Your task to perform on an android device: View the shopping cart on amazon. Image 0: 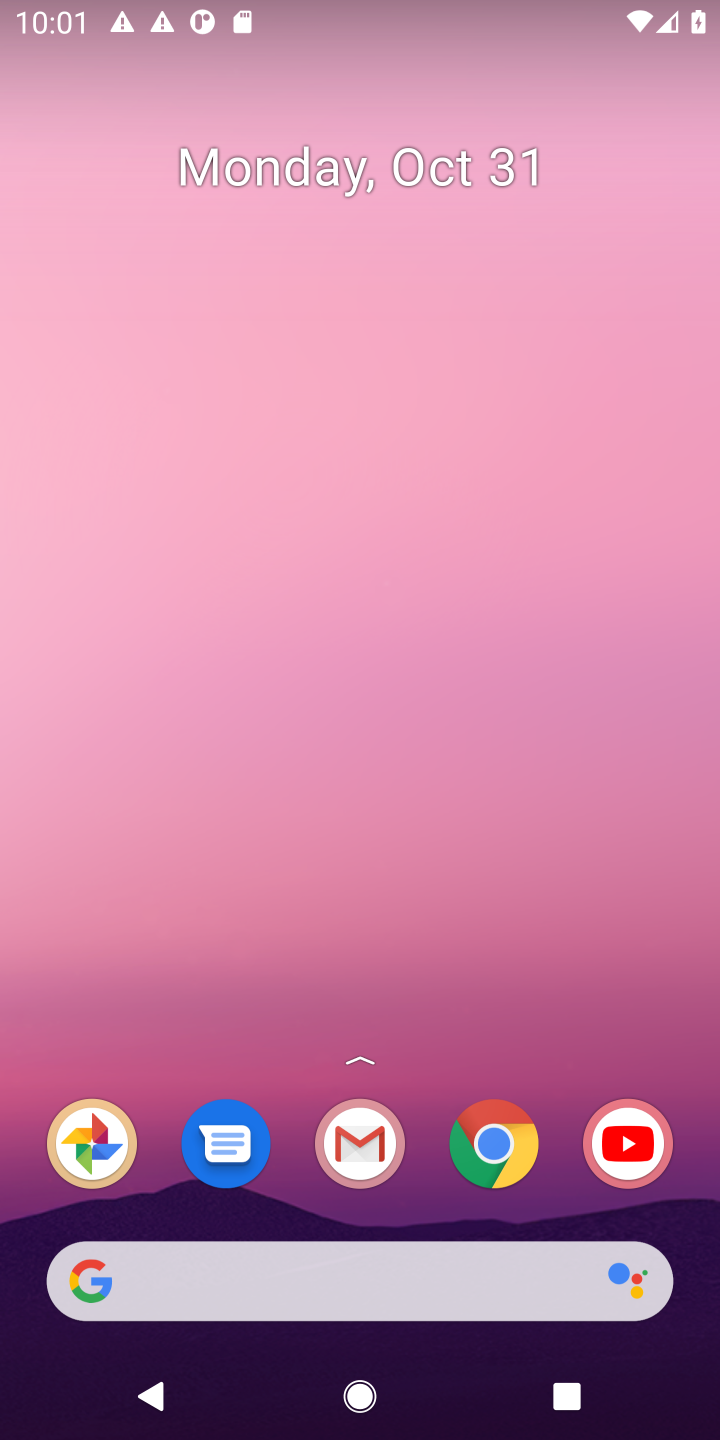
Step 0: press home button
Your task to perform on an android device: View the shopping cart on amazon. Image 1: 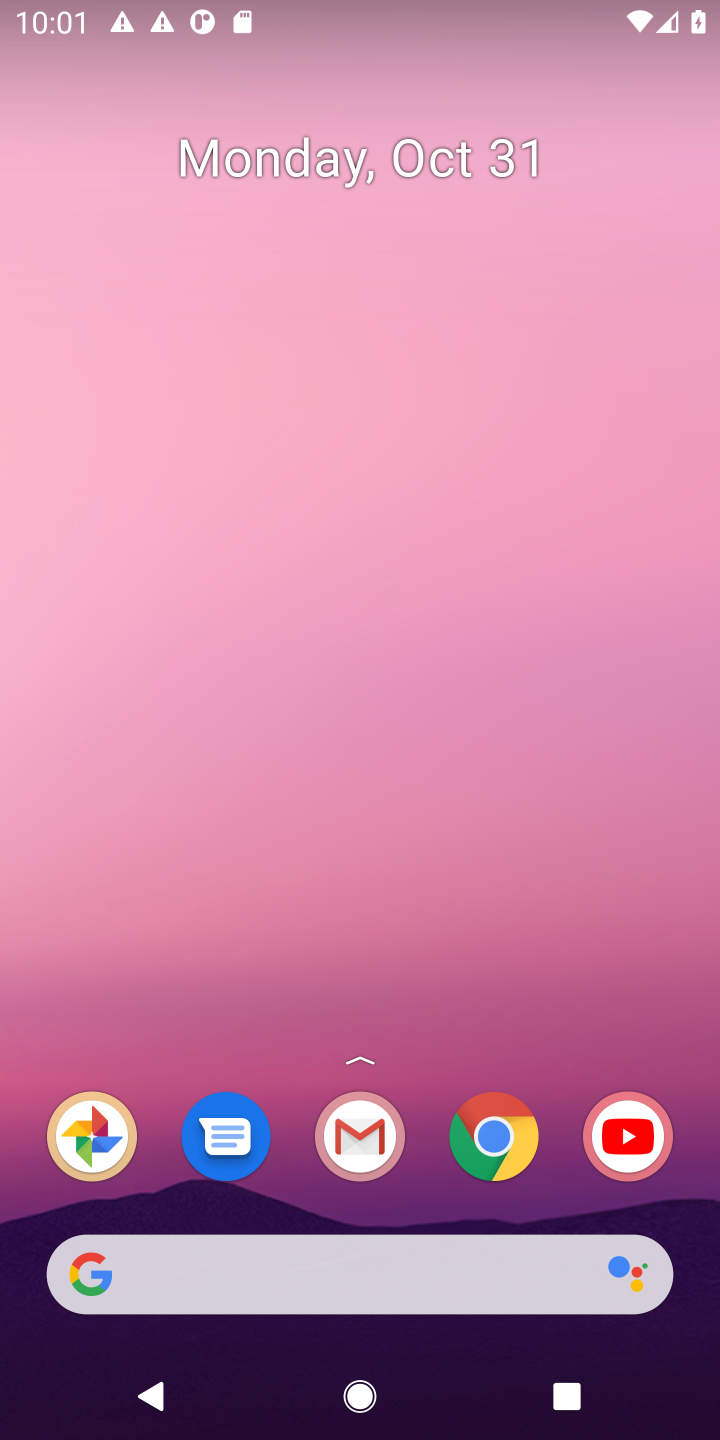
Step 1: click (156, 1276)
Your task to perform on an android device: View the shopping cart on amazon. Image 2: 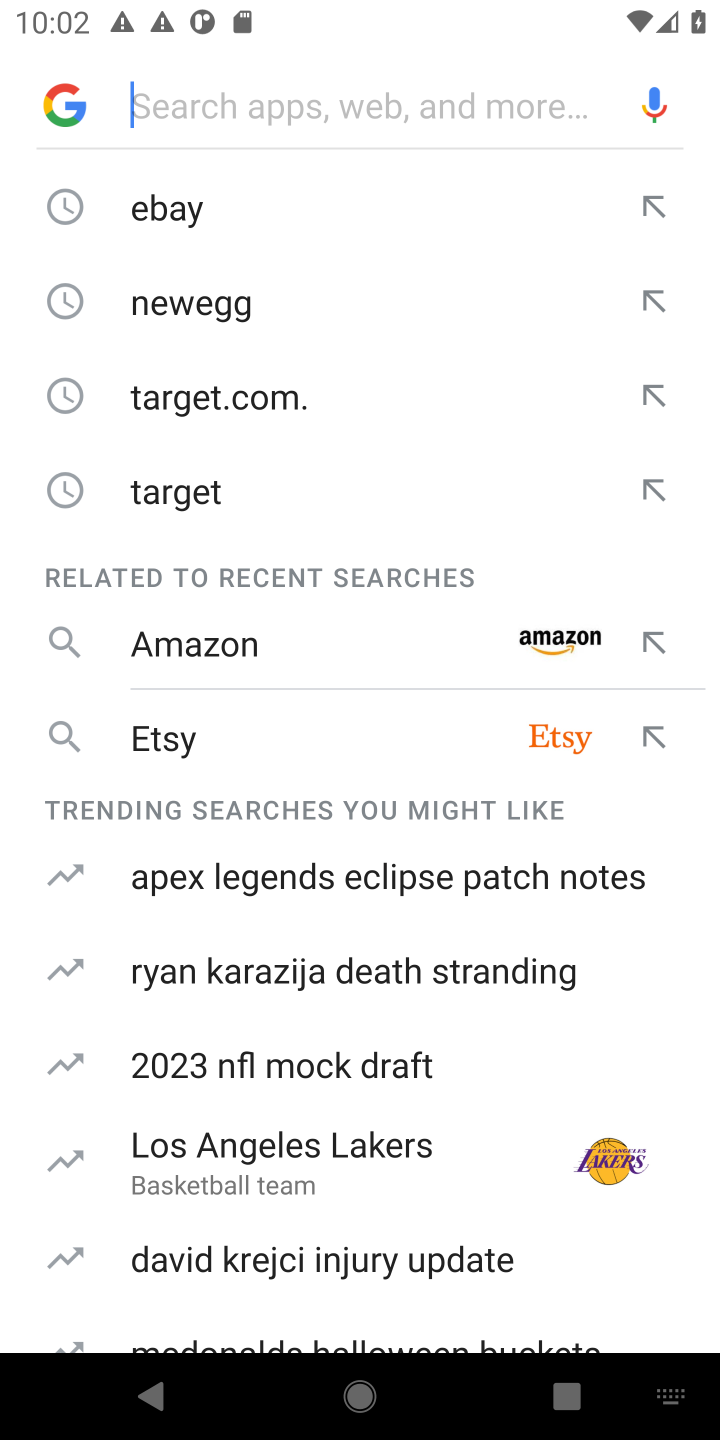
Step 2: type "amazon"
Your task to perform on an android device: View the shopping cart on amazon. Image 3: 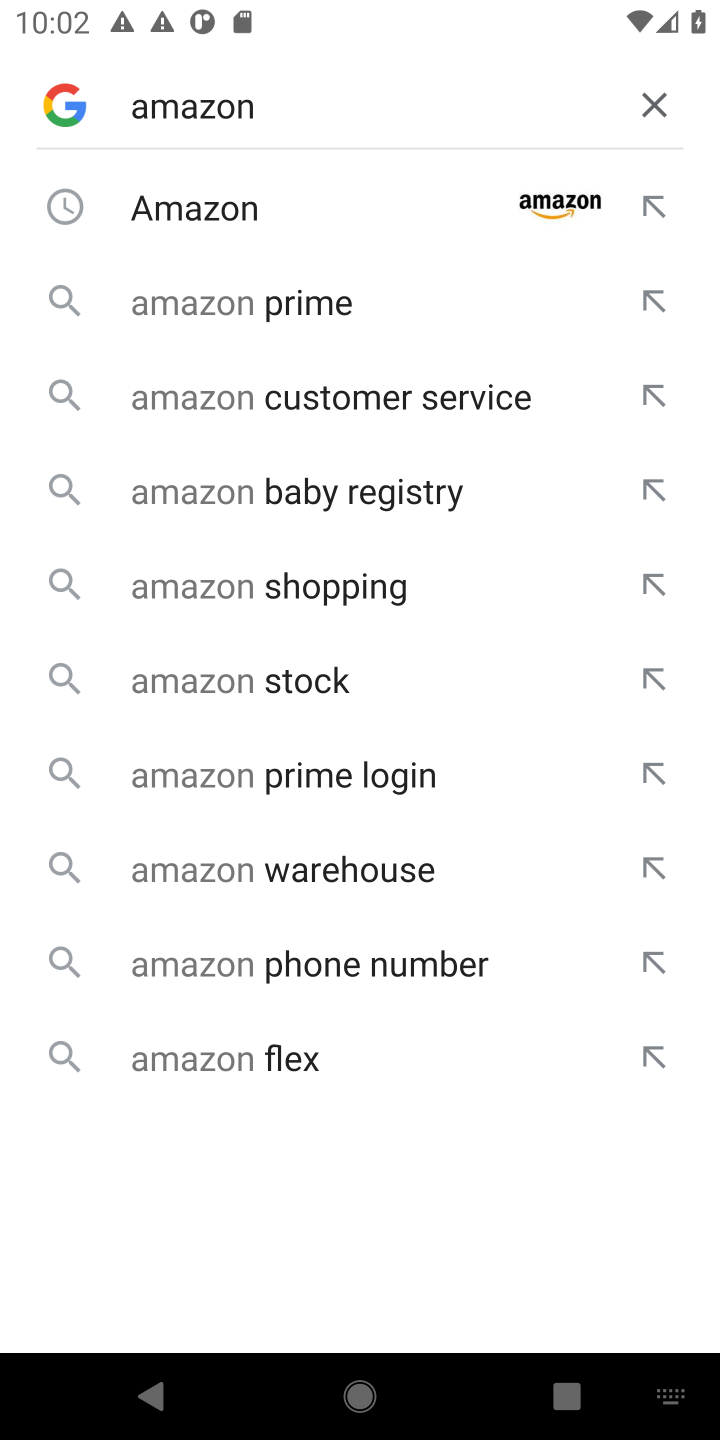
Step 3: press enter
Your task to perform on an android device: View the shopping cart on amazon. Image 4: 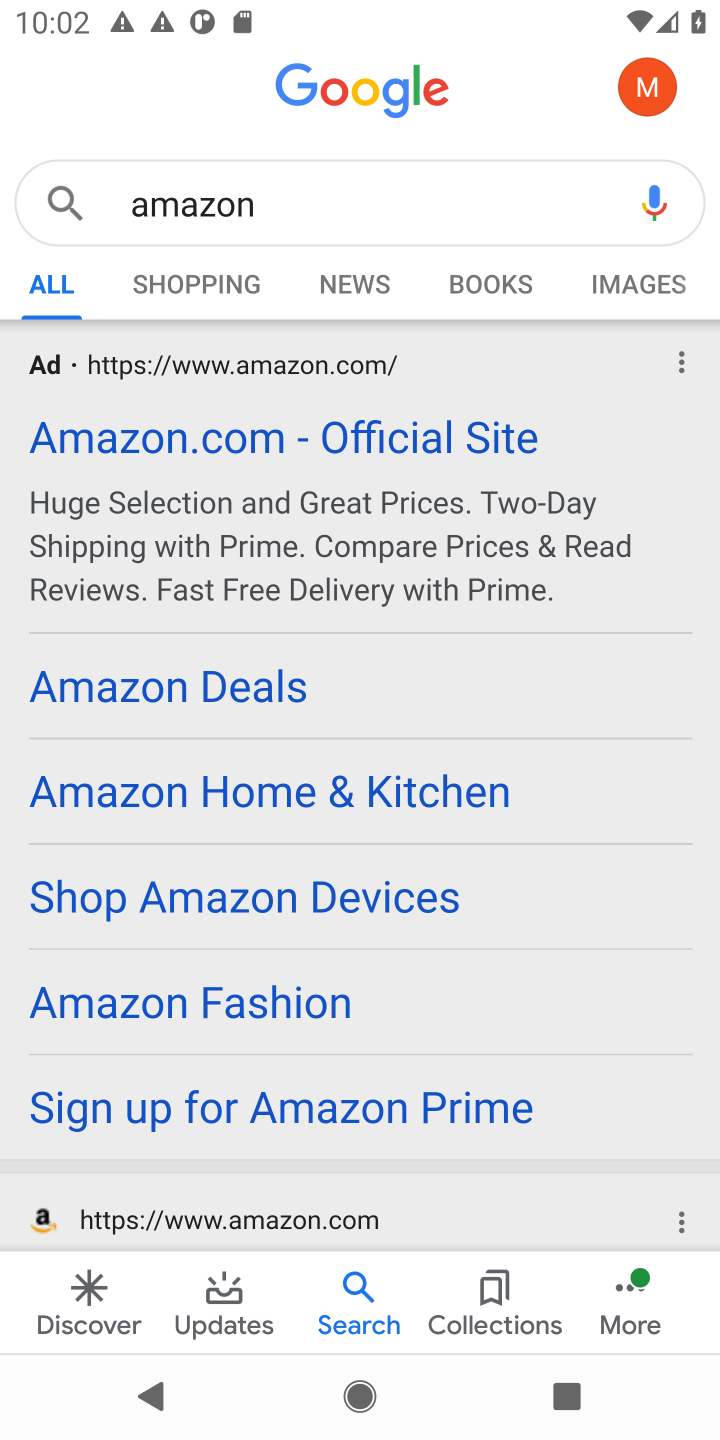
Step 4: click (427, 431)
Your task to perform on an android device: View the shopping cart on amazon. Image 5: 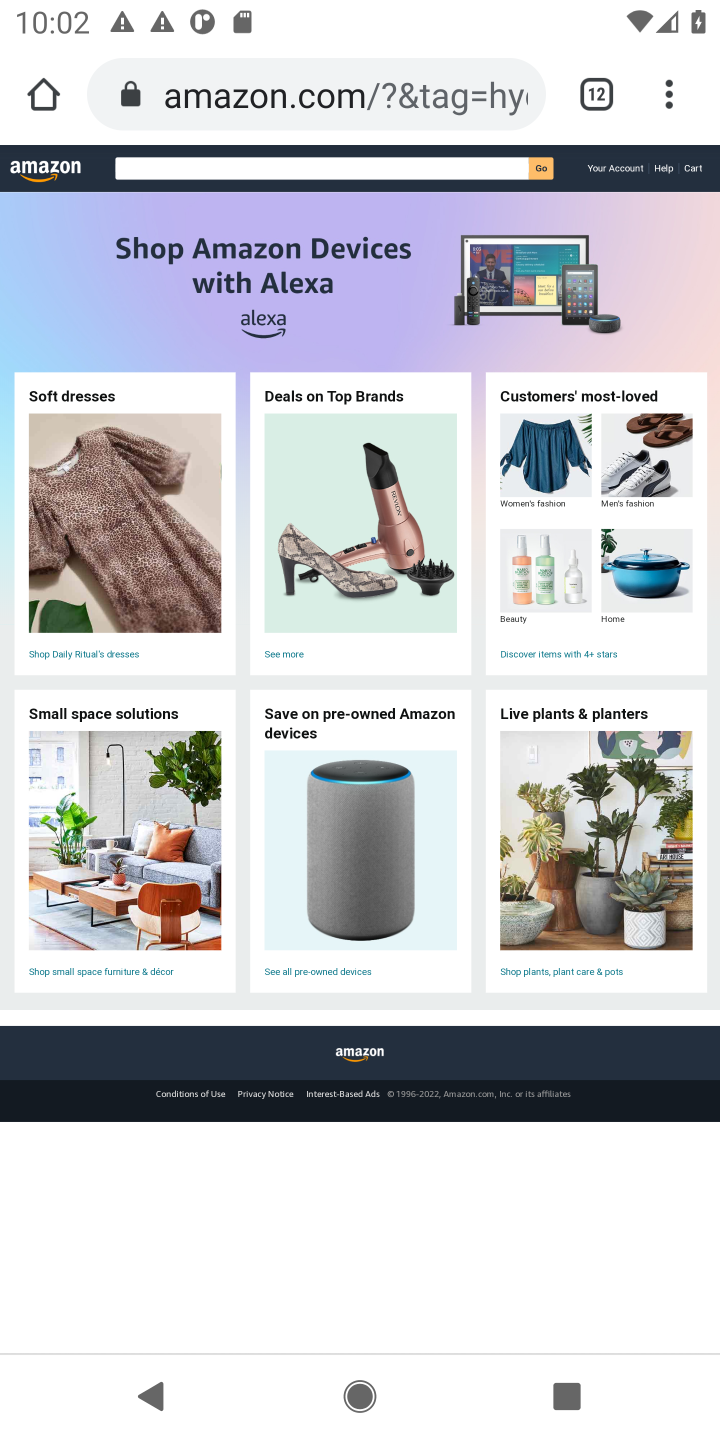
Step 5: click (287, 167)
Your task to perform on an android device: View the shopping cart on amazon. Image 6: 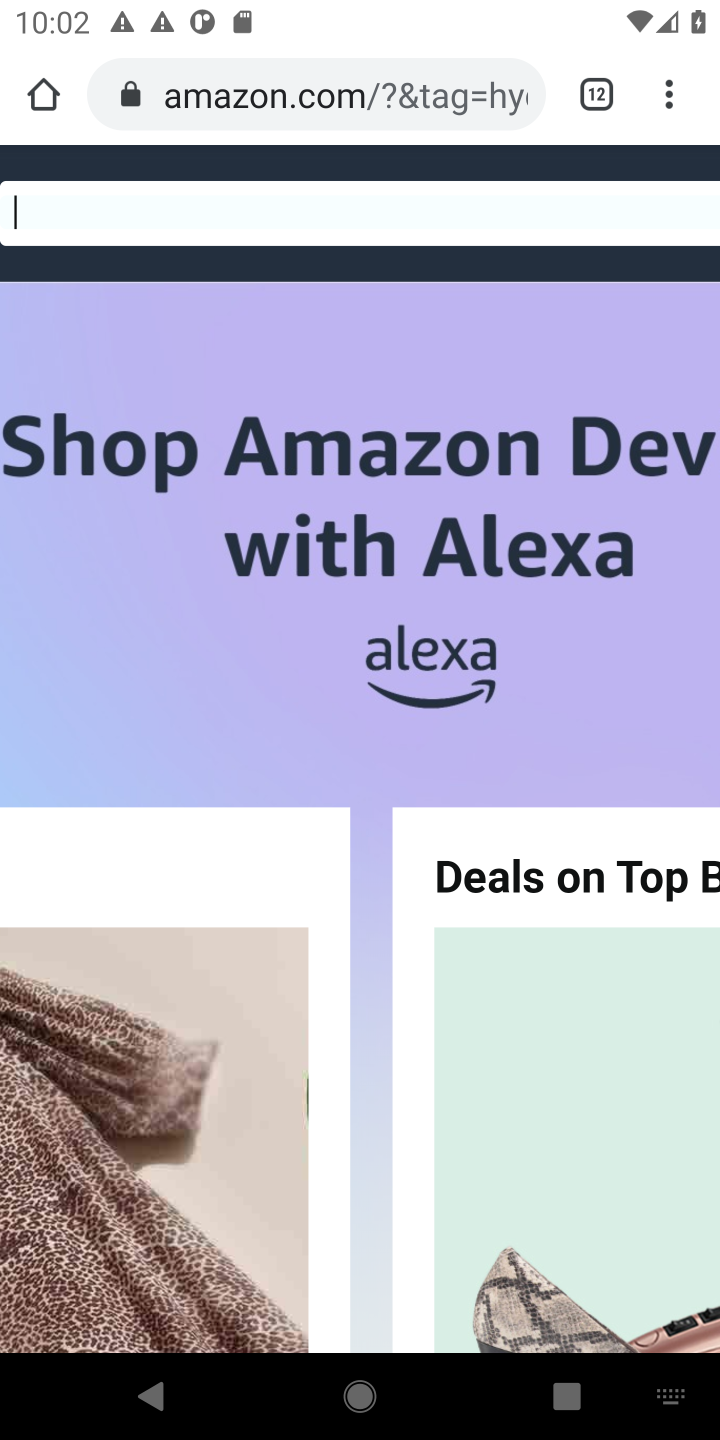
Step 6: press back button
Your task to perform on an android device: View the shopping cart on amazon. Image 7: 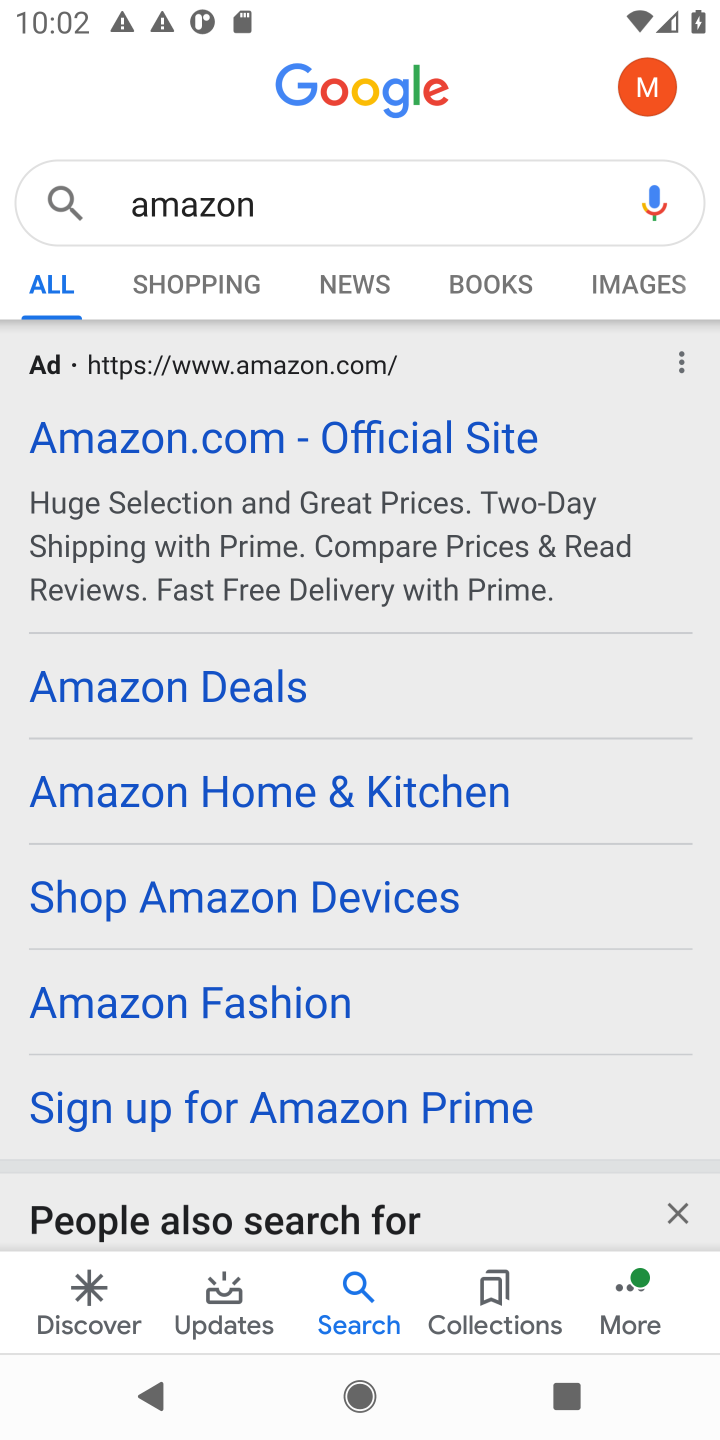
Step 7: drag from (431, 887) to (429, 409)
Your task to perform on an android device: View the shopping cart on amazon. Image 8: 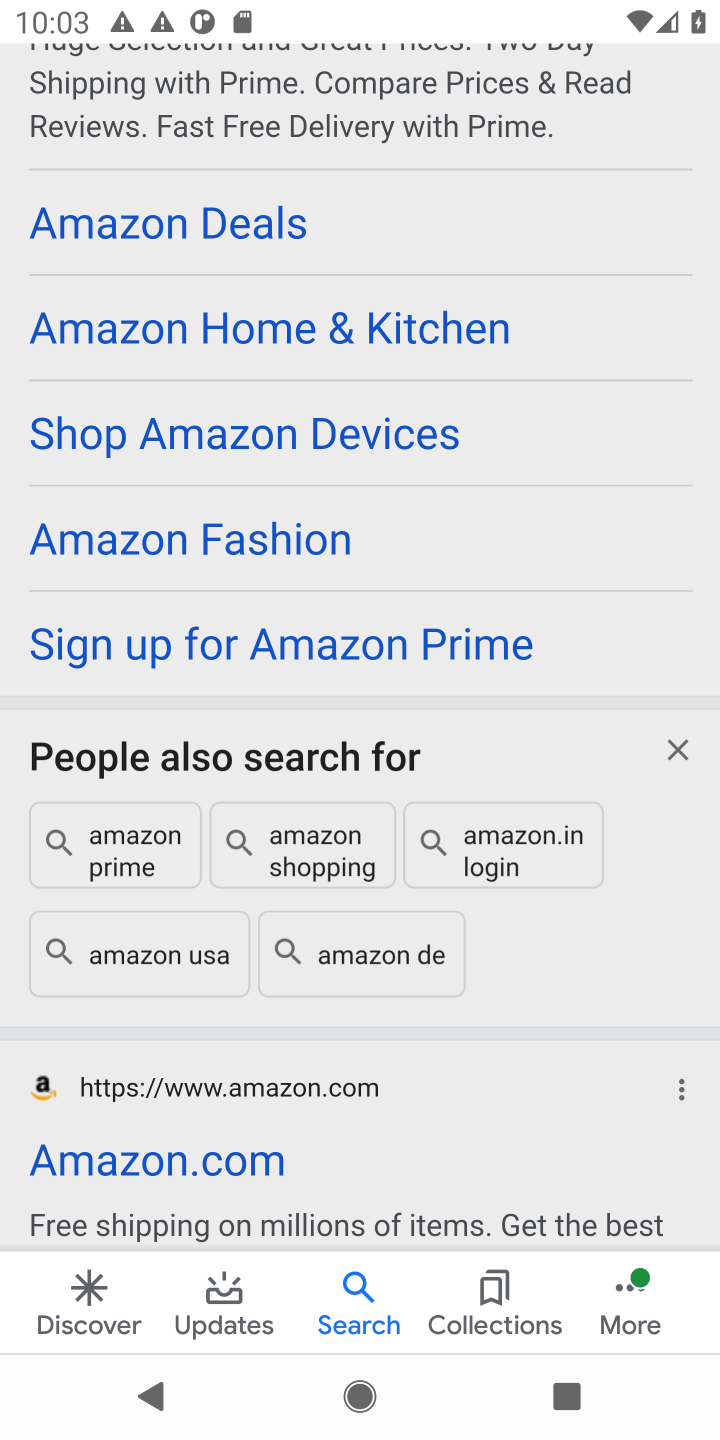
Step 8: click (172, 1180)
Your task to perform on an android device: View the shopping cart on amazon. Image 9: 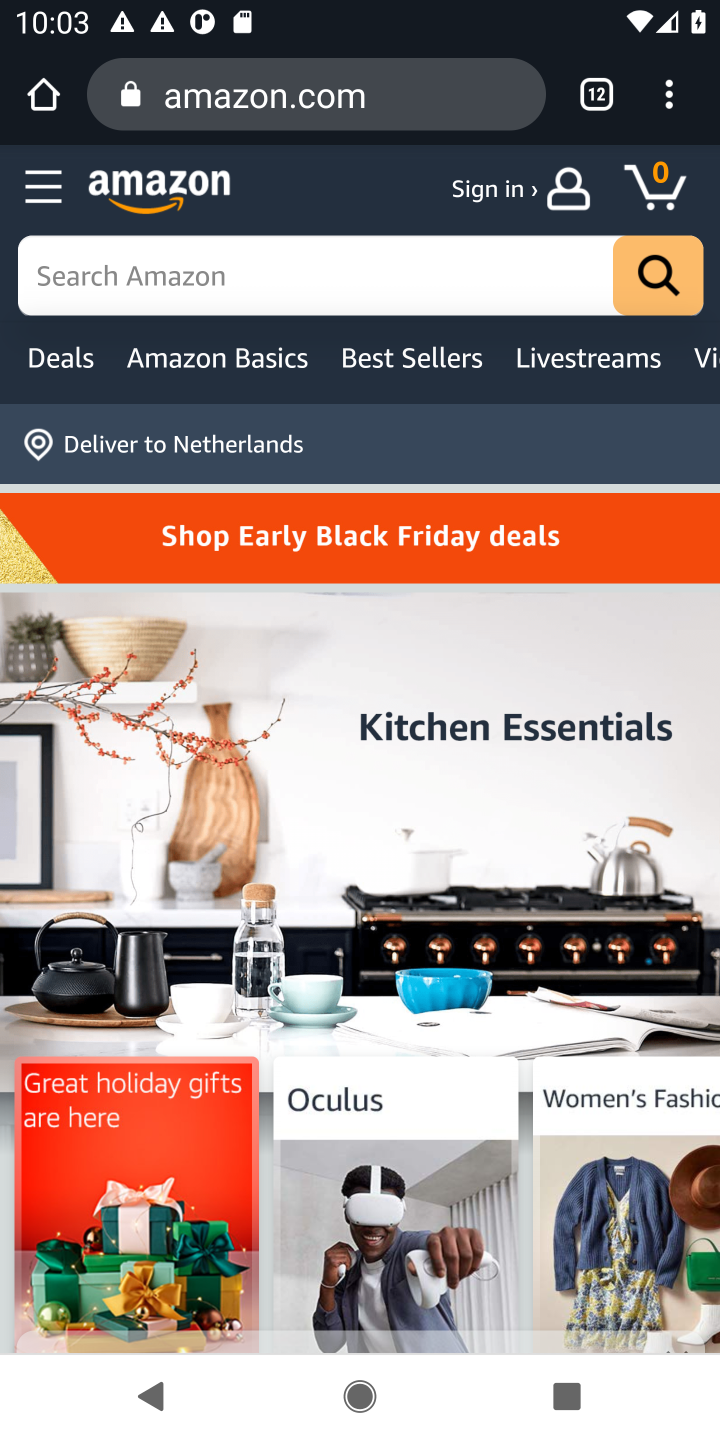
Step 9: click (658, 176)
Your task to perform on an android device: View the shopping cart on amazon. Image 10: 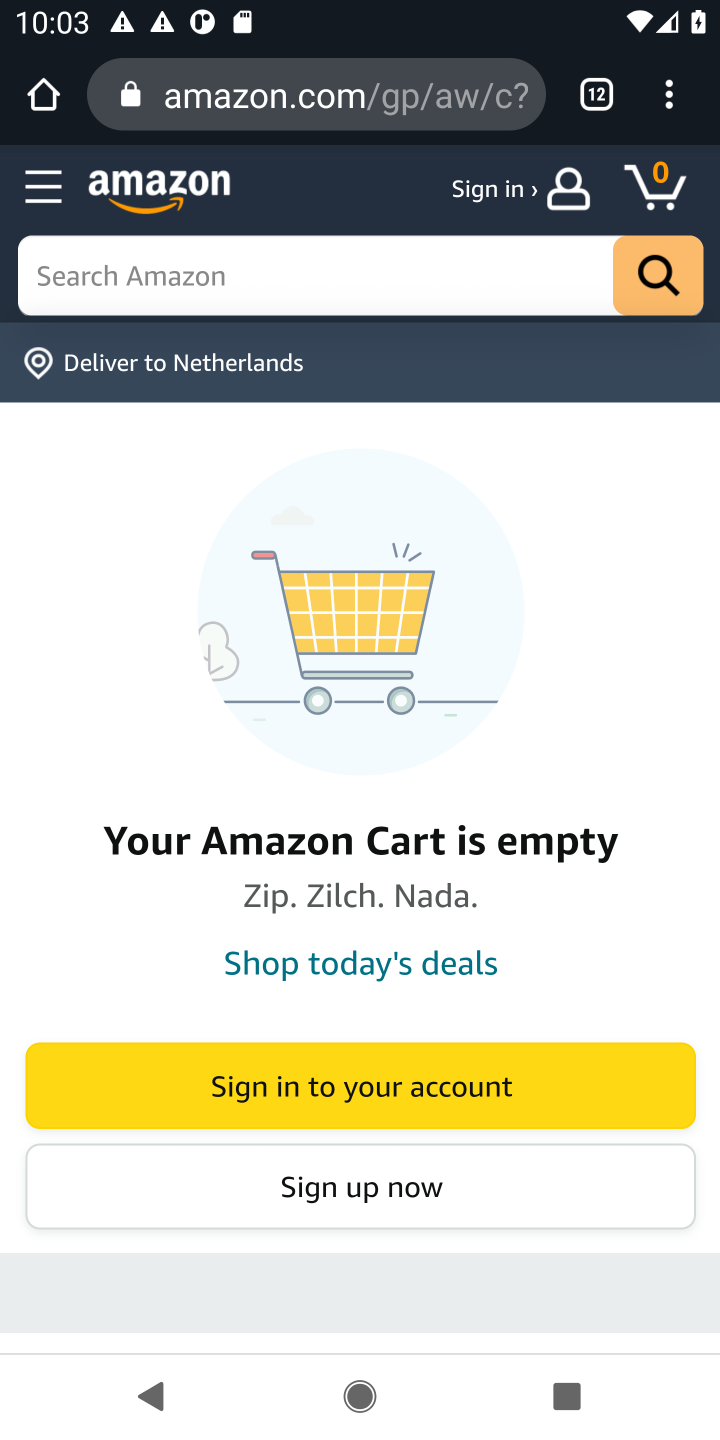
Step 10: task complete